Your task to perform on an android device: Search for vegetarian restaurants on Maps Image 0: 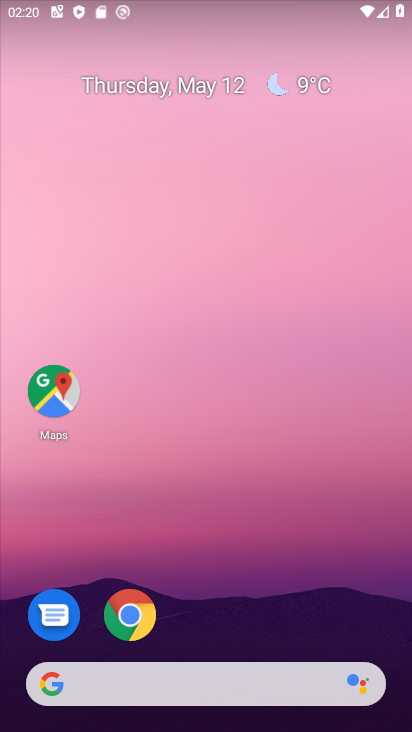
Step 0: click (62, 391)
Your task to perform on an android device: Search for vegetarian restaurants on Maps Image 1: 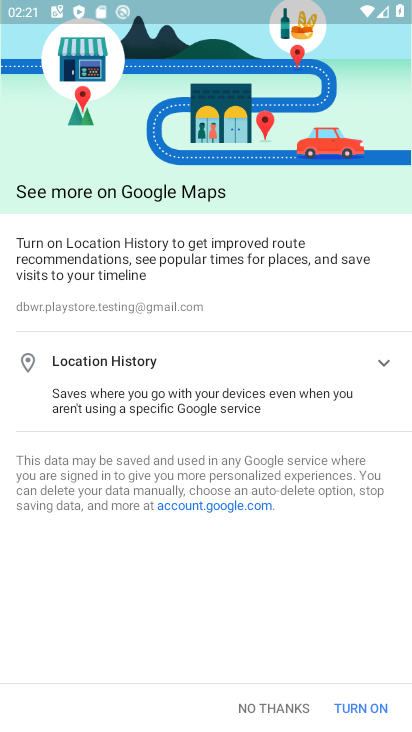
Step 1: click (352, 705)
Your task to perform on an android device: Search for vegetarian restaurants on Maps Image 2: 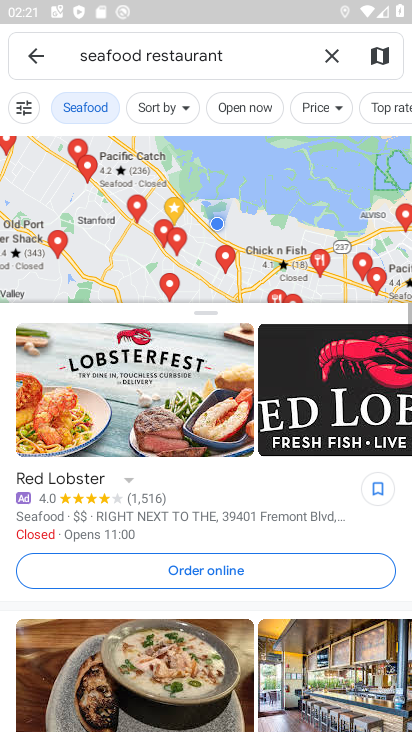
Step 2: click (352, 705)
Your task to perform on an android device: Search for vegetarian restaurants on Maps Image 3: 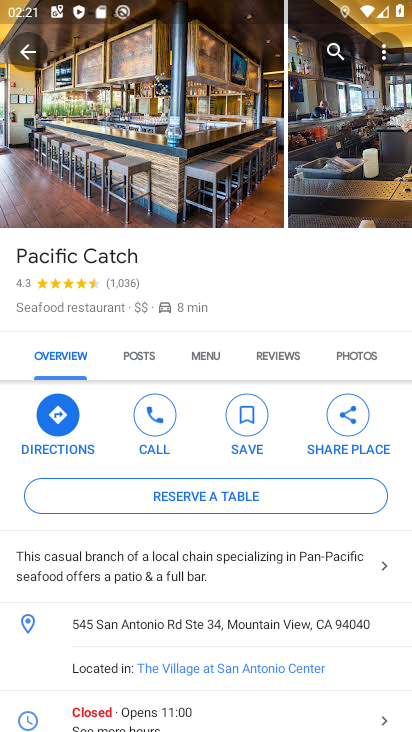
Step 3: click (34, 59)
Your task to perform on an android device: Search for vegetarian restaurants on Maps Image 4: 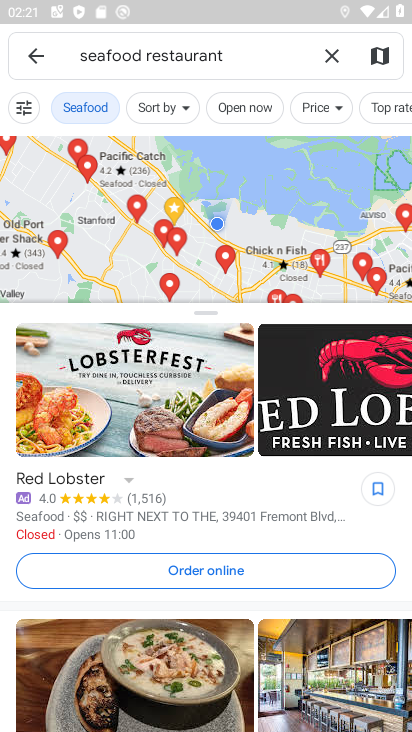
Step 4: click (332, 58)
Your task to perform on an android device: Search for vegetarian restaurants on Maps Image 5: 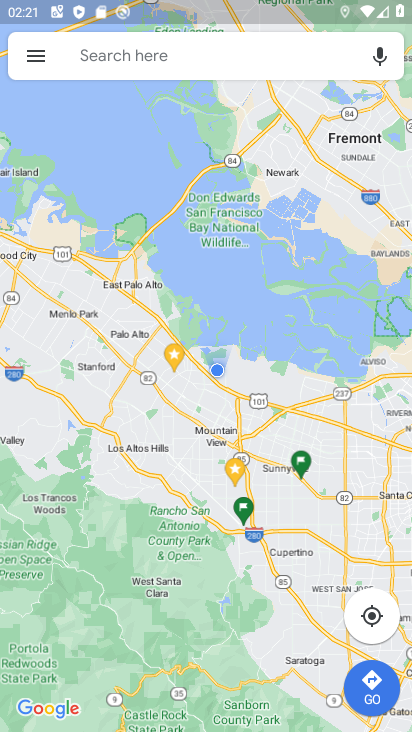
Step 5: click (224, 60)
Your task to perform on an android device: Search for vegetarian restaurants on Maps Image 6: 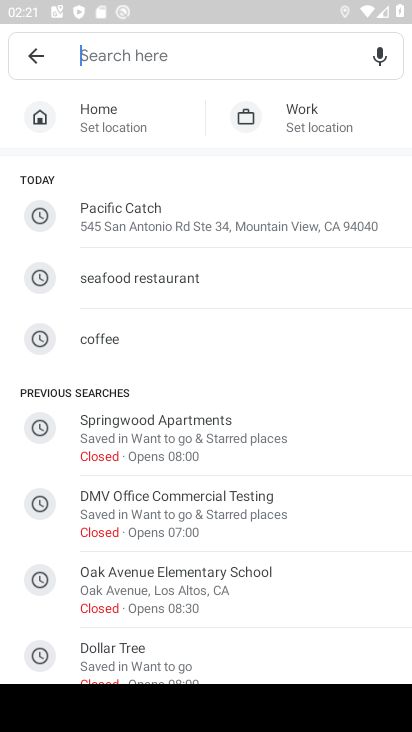
Step 6: type "vegetarain restaurants"
Your task to perform on an android device: Search for vegetarian restaurants on Maps Image 7: 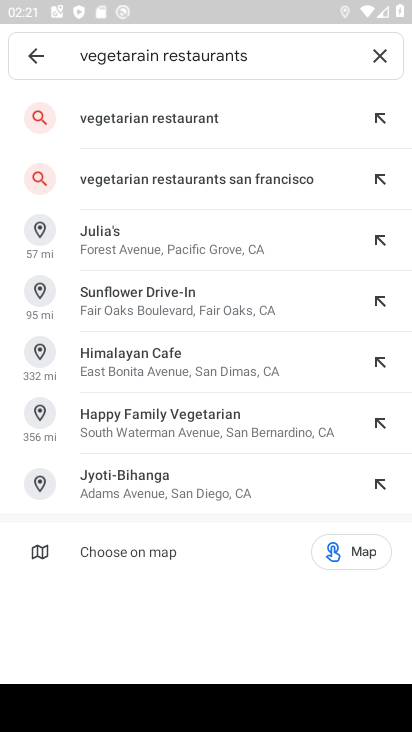
Step 7: click (147, 114)
Your task to perform on an android device: Search for vegetarian restaurants on Maps Image 8: 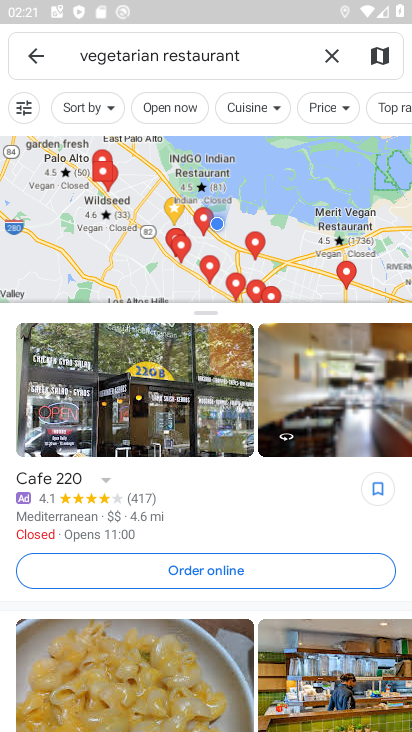
Step 8: task complete